Your task to perform on an android device: uninstall "Roku - Official Remote Control" Image 0: 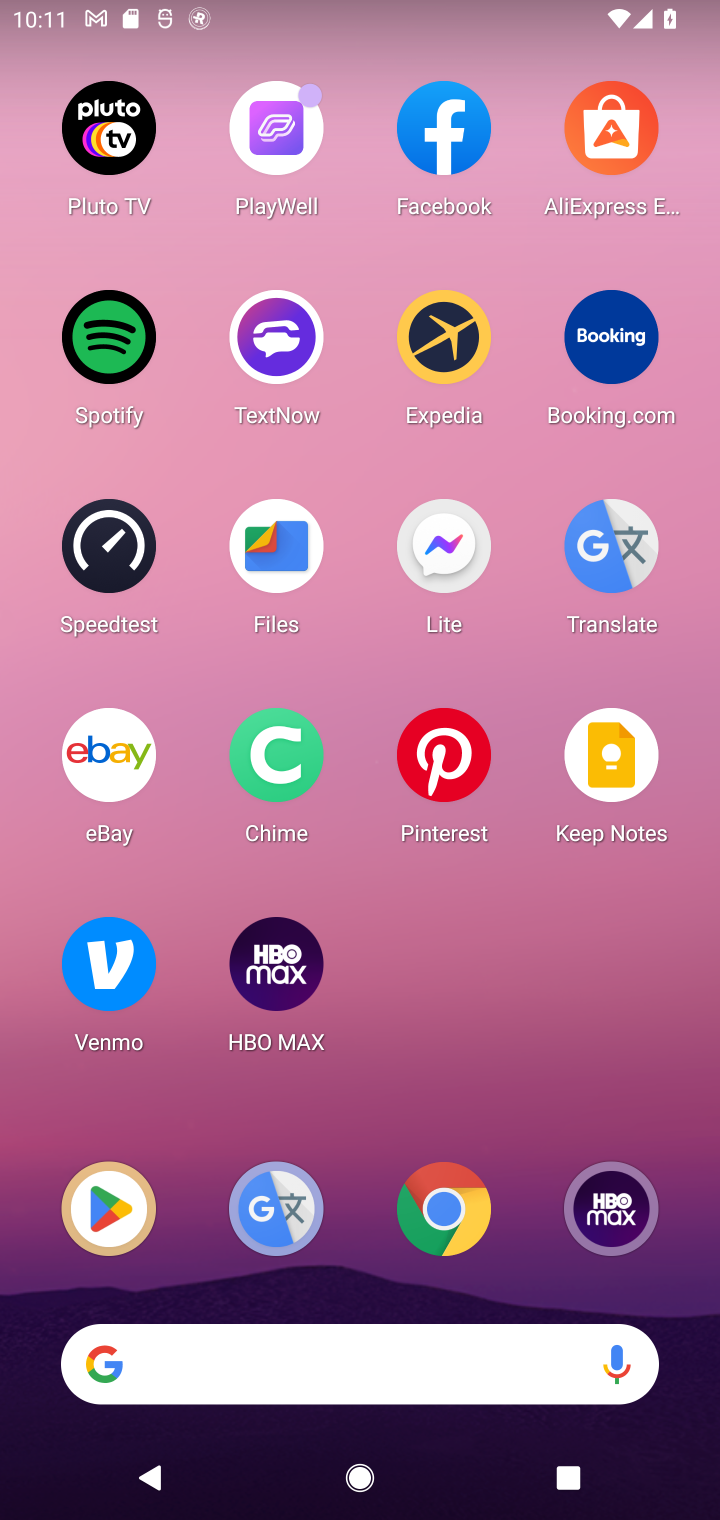
Step 0: press home button
Your task to perform on an android device: uninstall "Roku - Official Remote Control" Image 1: 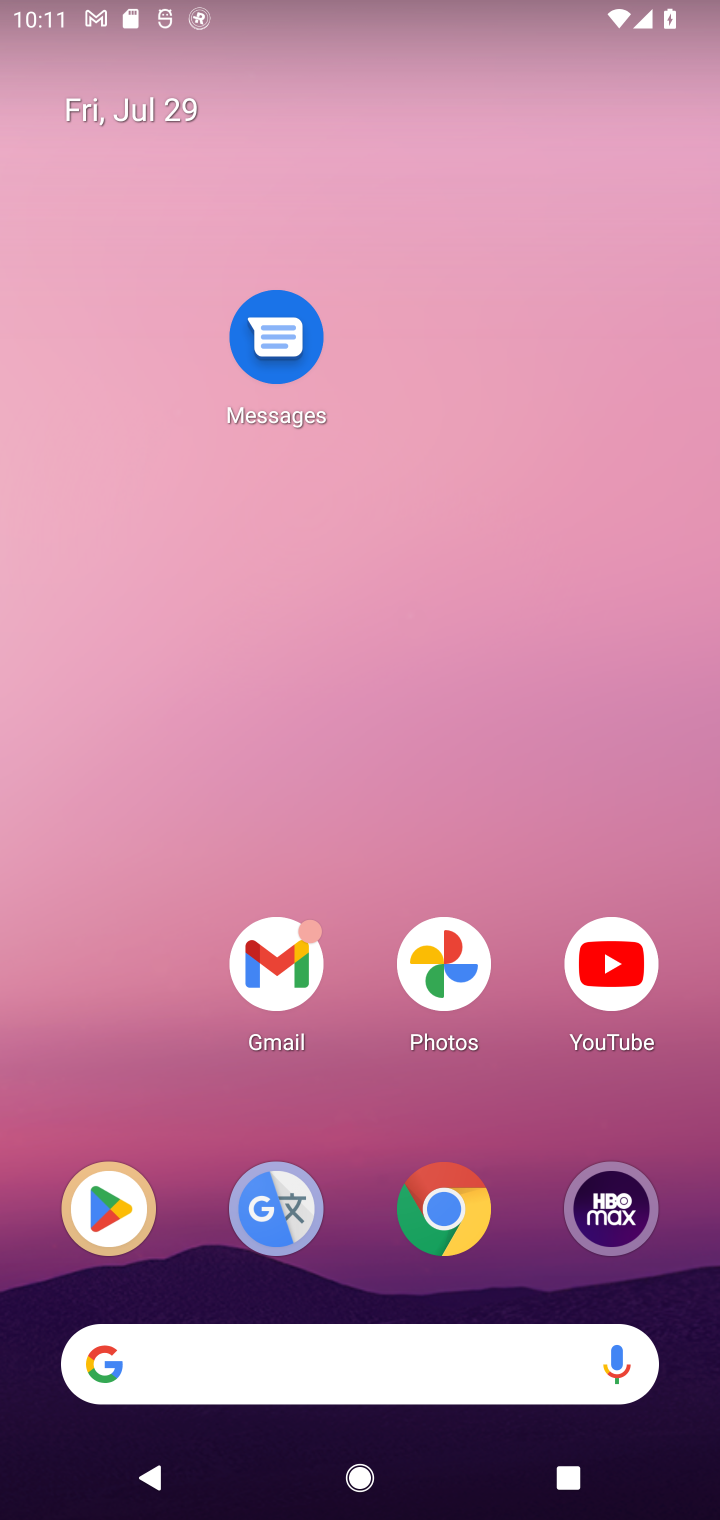
Step 1: drag from (276, 1387) to (399, 225)
Your task to perform on an android device: uninstall "Roku - Official Remote Control" Image 2: 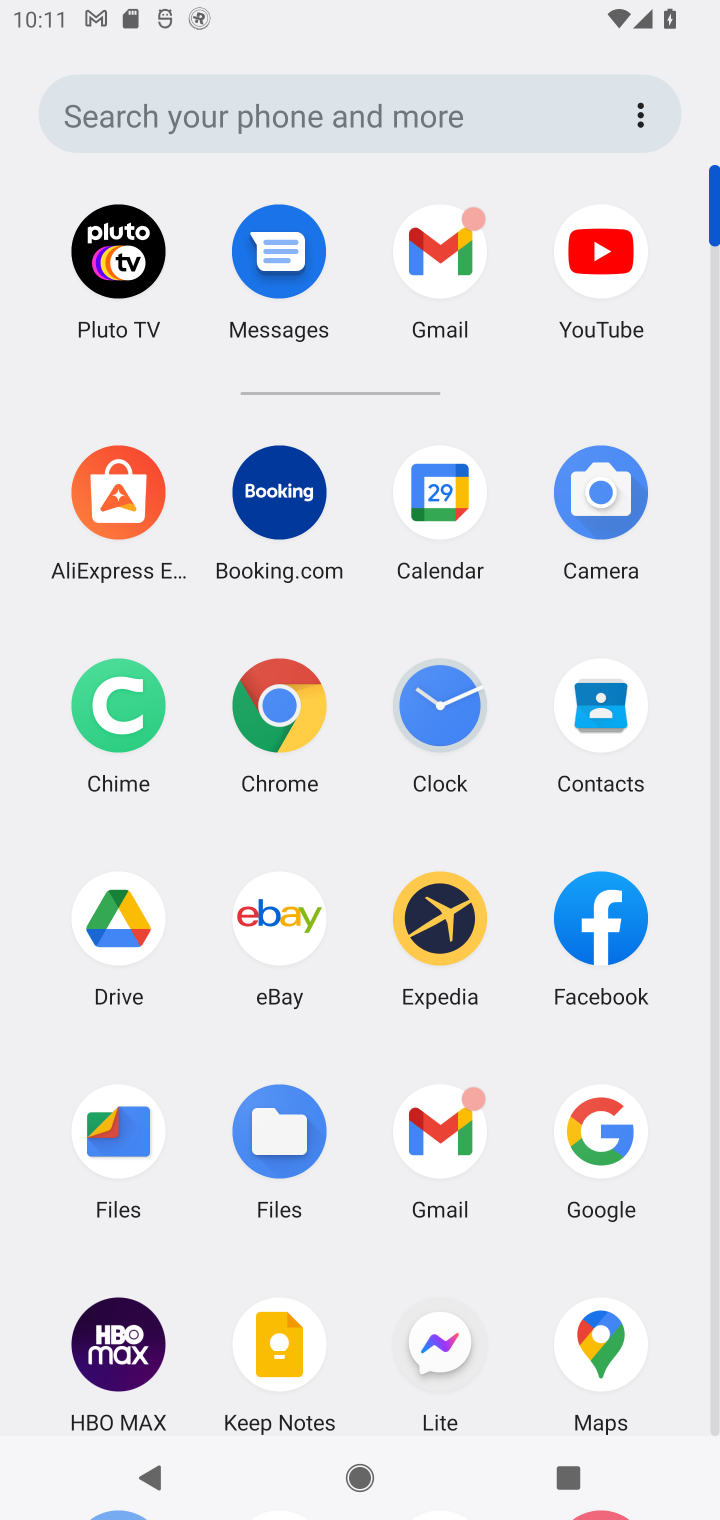
Step 2: drag from (362, 1253) to (337, 538)
Your task to perform on an android device: uninstall "Roku - Official Remote Control" Image 3: 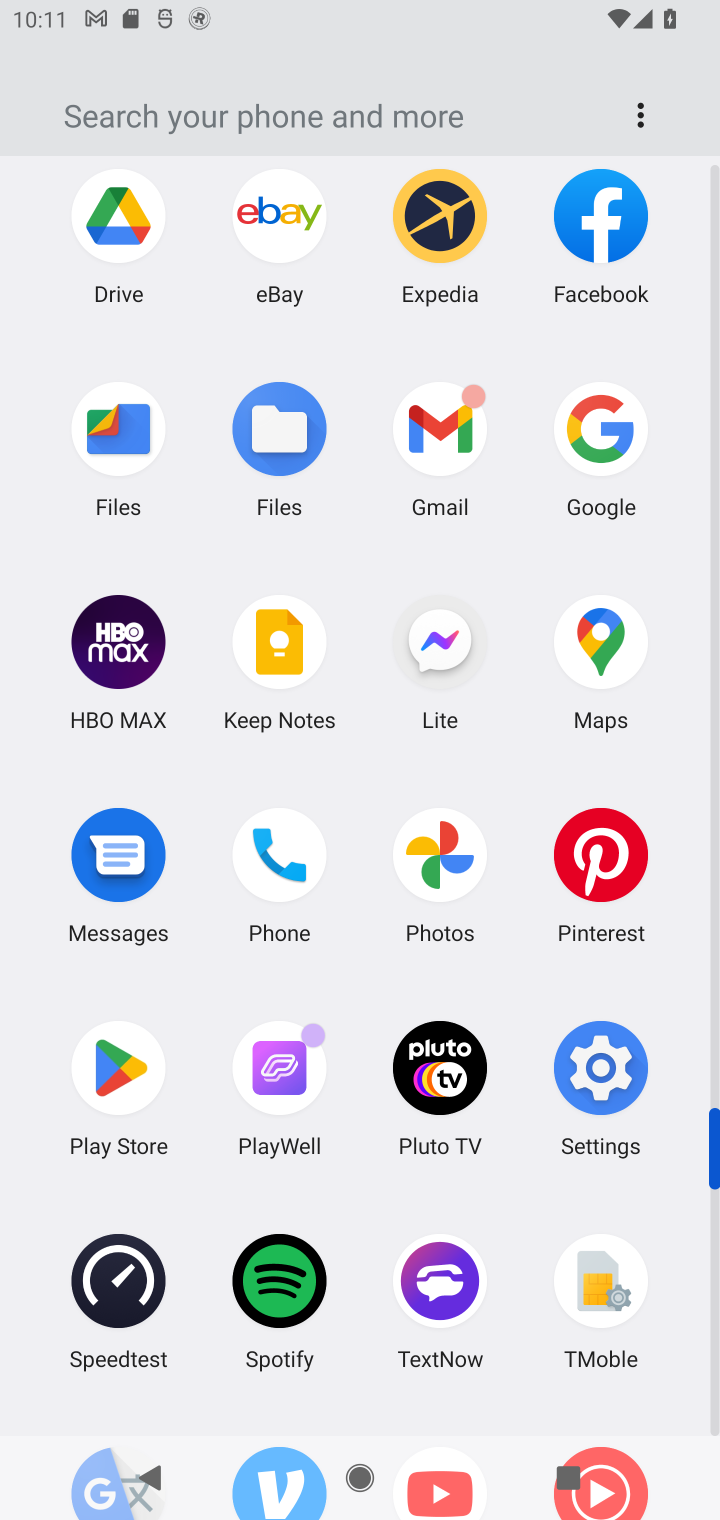
Step 3: click (114, 1080)
Your task to perform on an android device: uninstall "Roku - Official Remote Control" Image 4: 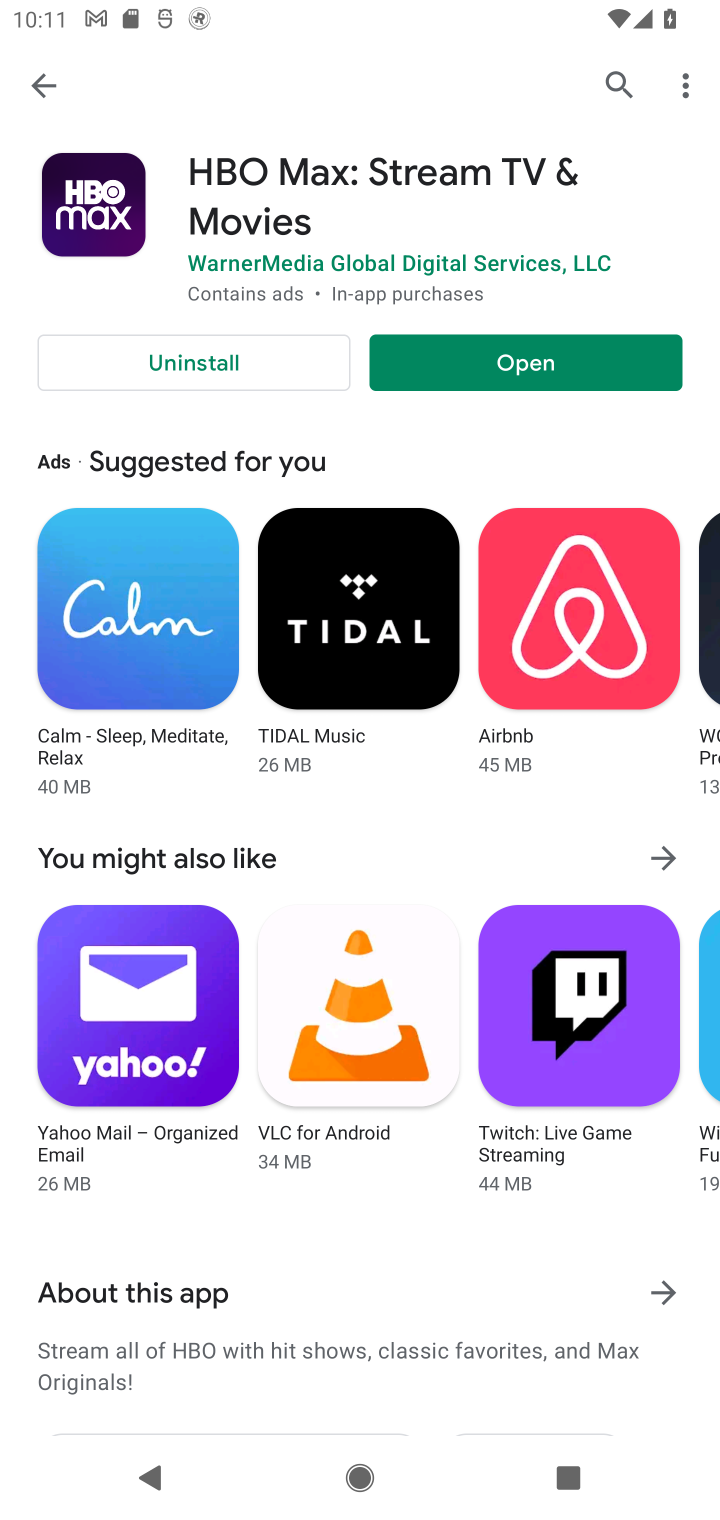
Step 4: click (114, 1080)
Your task to perform on an android device: uninstall "Roku - Official Remote Control" Image 5: 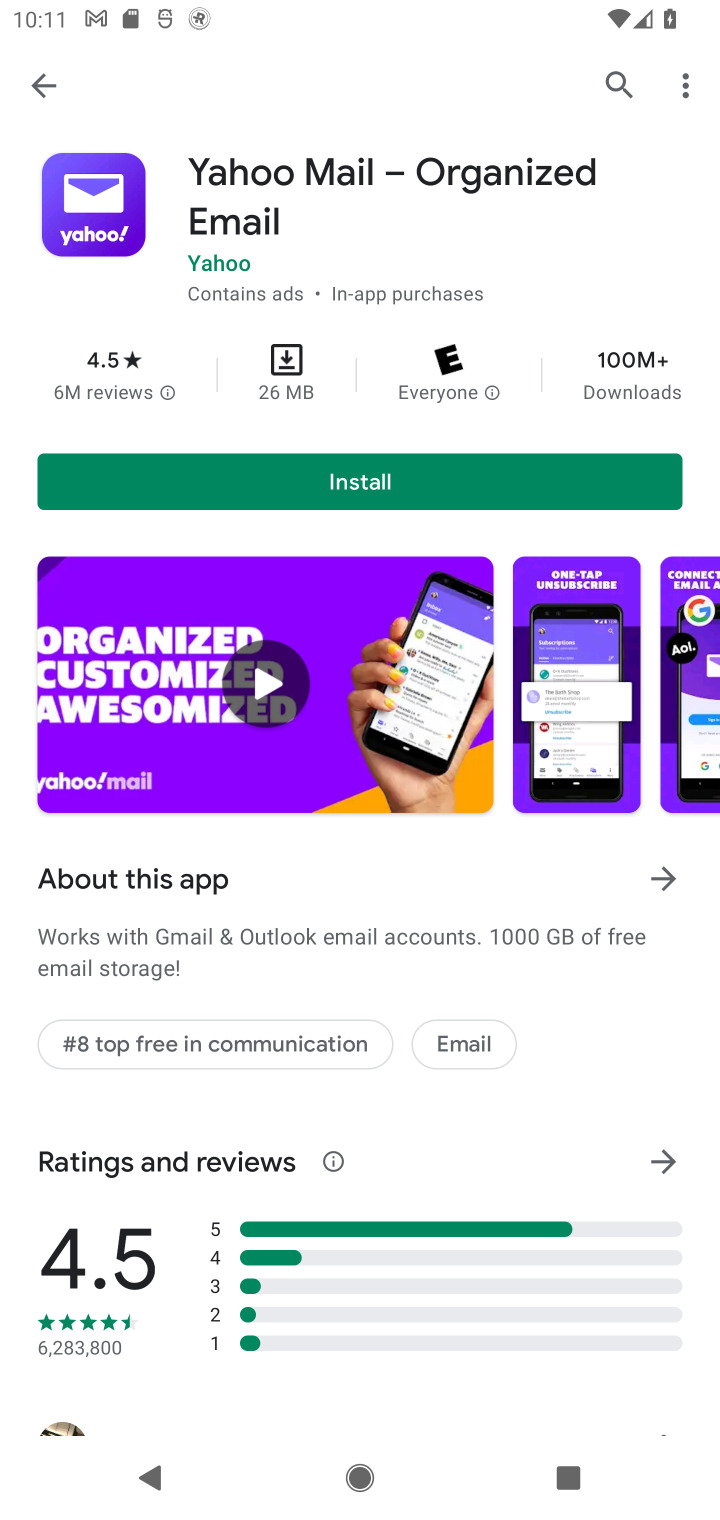
Step 5: click (620, 82)
Your task to perform on an android device: uninstall "Roku - Official Remote Control" Image 6: 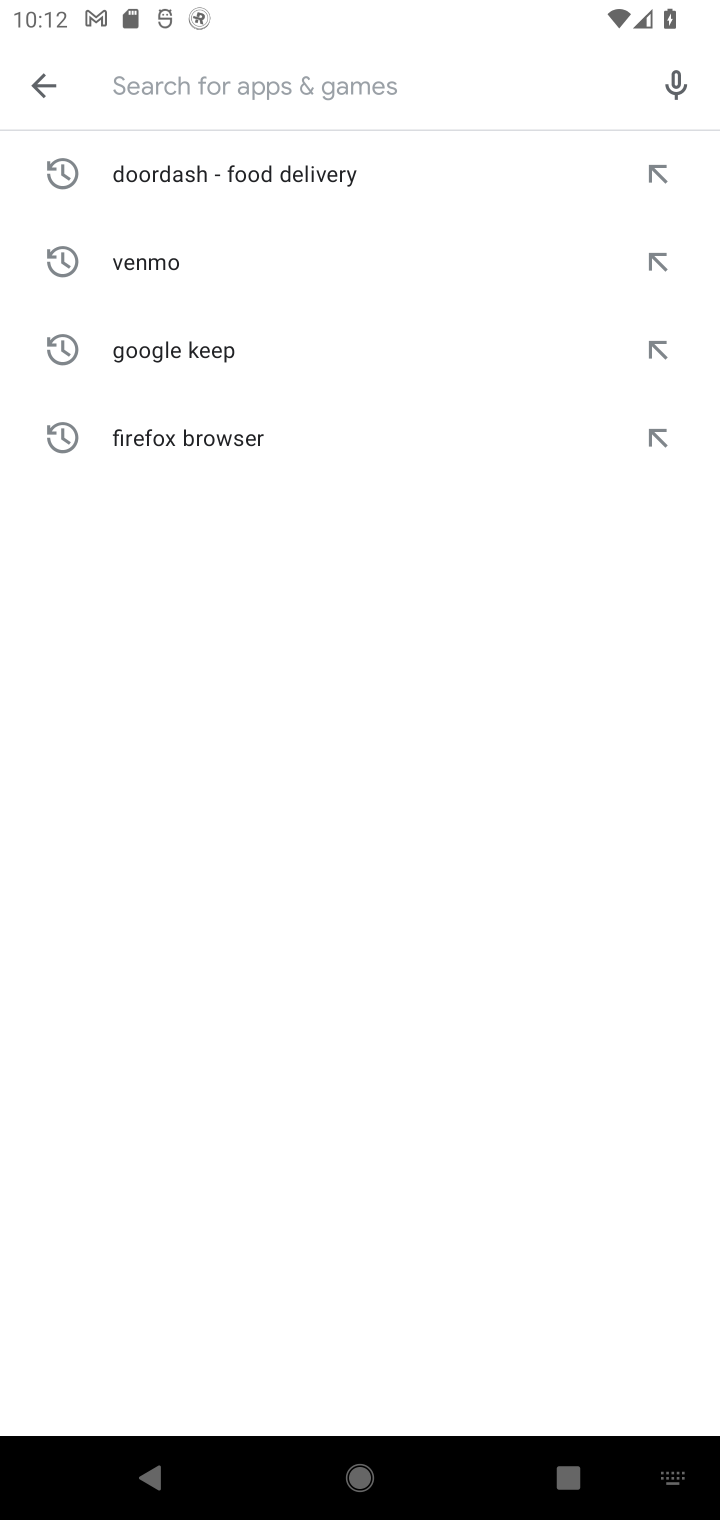
Step 6: type "Roku - Official Remote Control"
Your task to perform on an android device: uninstall "Roku - Official Remote Control" Image 7: 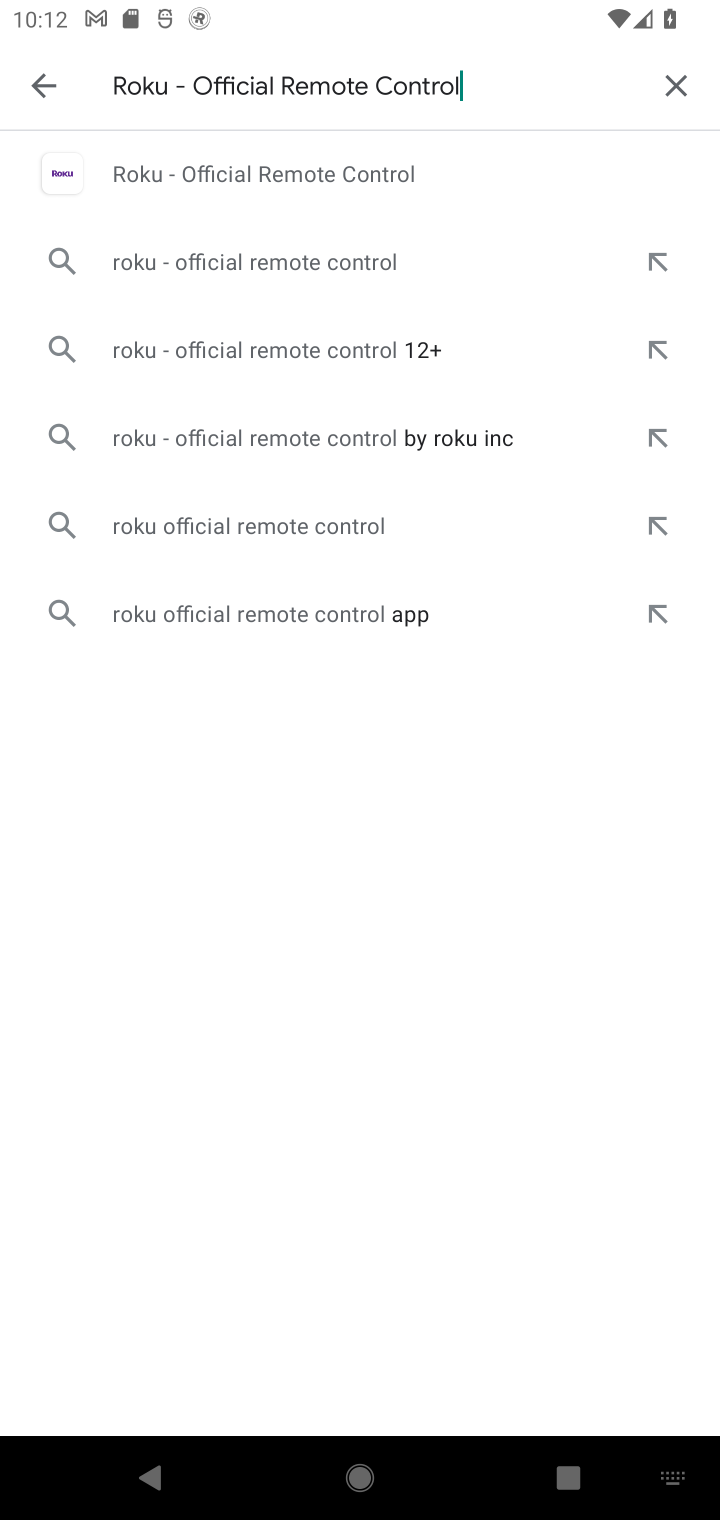
Step 7: click (219, 164)
Your task to perform on an android device: uninstall "Roku - Official Remote Control" Image 8: 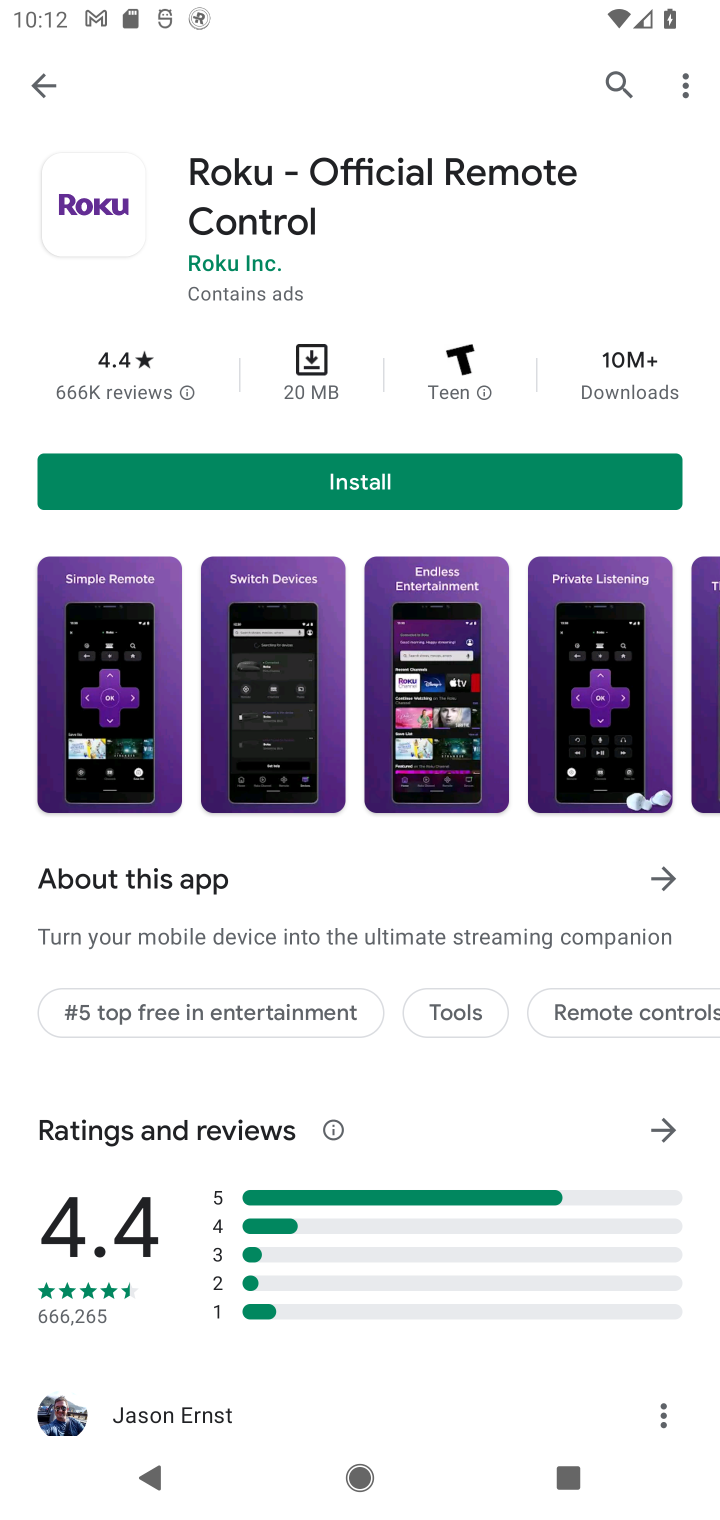
Step 8: task complete